Your task to perform on an android device: Open Wikipedia Image 0: 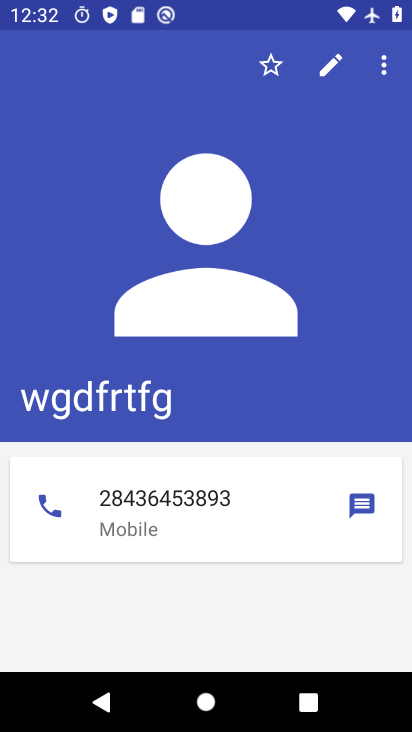
Step 0: press home button
Your task to perform on an android device: Open Wikipedia Image 1: 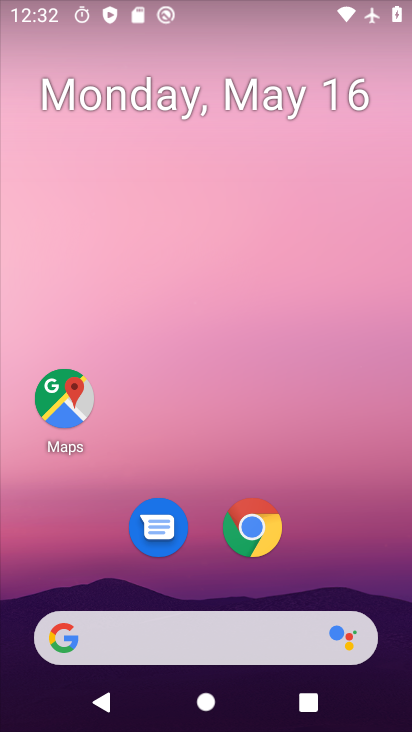
Step 1: click (249, 545)
Your task to perform on an android device: Open Wikipedia Image 2: 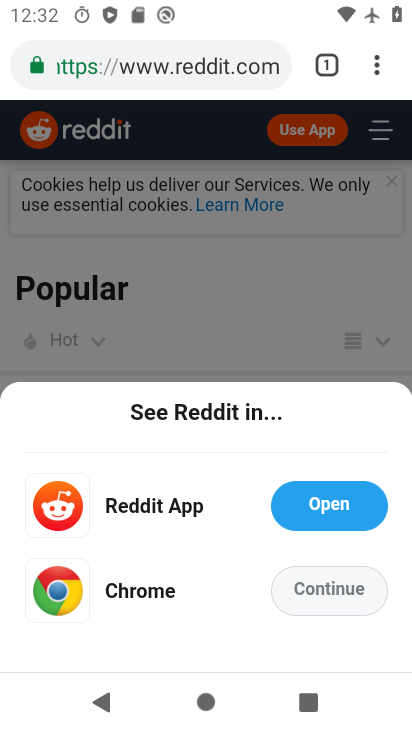
Step 2: drag from (383, 75) to (273, 130)
Your task to perform on an android device: Open Wikipedia Image 3: 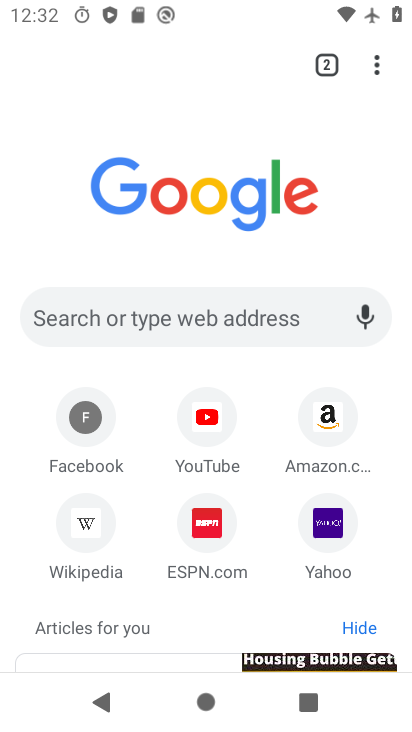
Step 3: click (84, 530)
Your task to perform on an android device: Open Wikipedia Image 4: 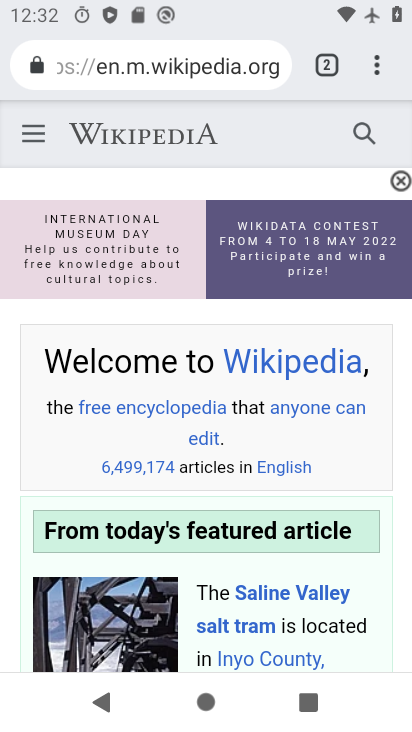
Step 4: task complete